Your task to perform on an android device: Go to ESPN.com Image 0: 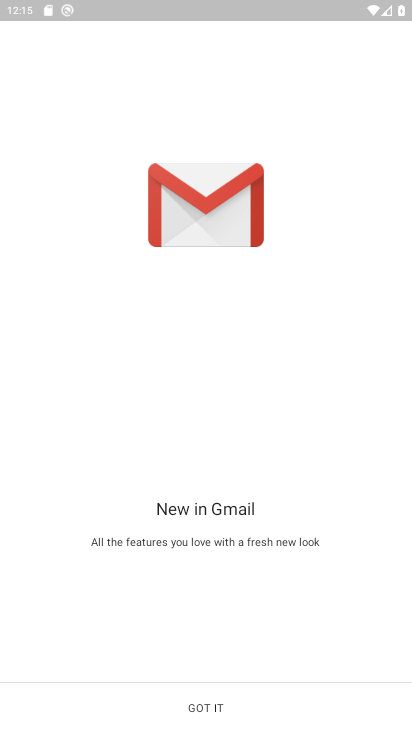
Step 0: press home button
Your task to perform on an android device: Go to ESPN.com Image 1: 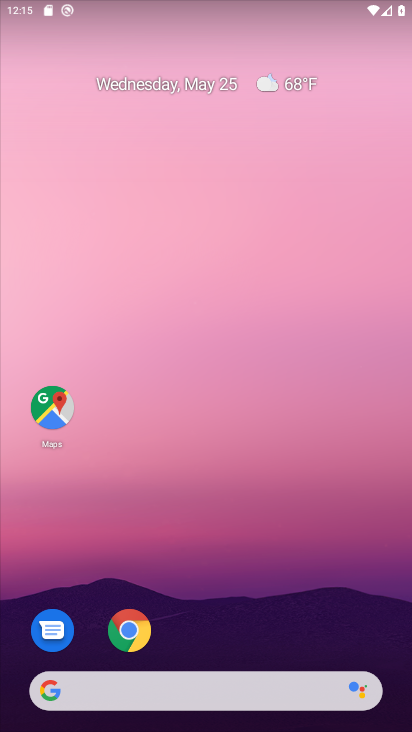
Step 1: click (138, 628)
Your task to perform on an android device: Go to ESPN.com Image 2: 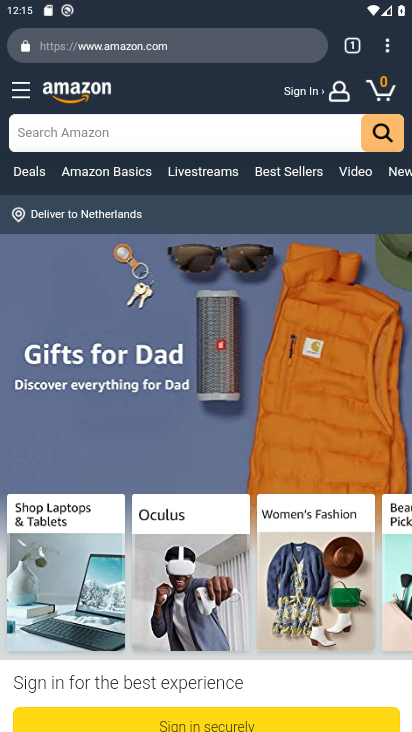
Step 2: click (346, 43)
Your task to perform on an android device: Go to ESPN.com Image 3: 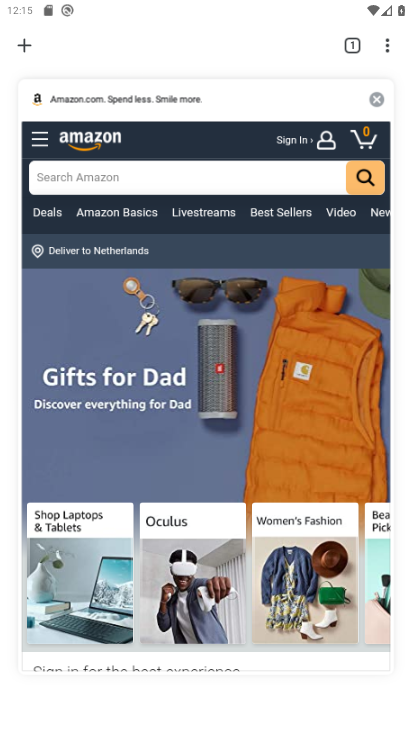
Step 3: click (17, 50)
Your task to perform on an android device: Go to ESPN.com Image 4: 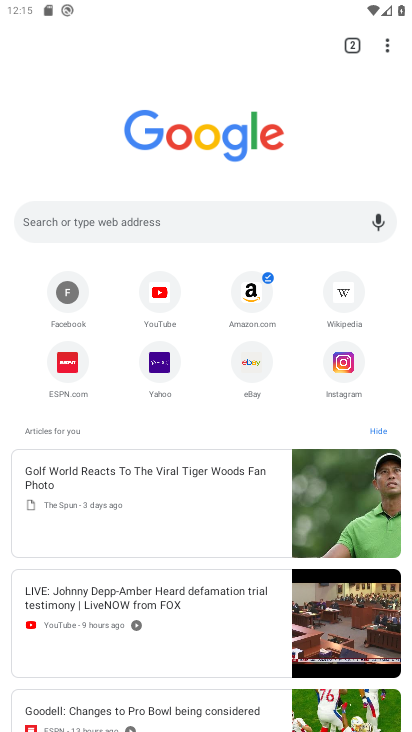
Step 4: click (53, 359)
Your task to perform on an android device: Go to ESPN.com Image 5: 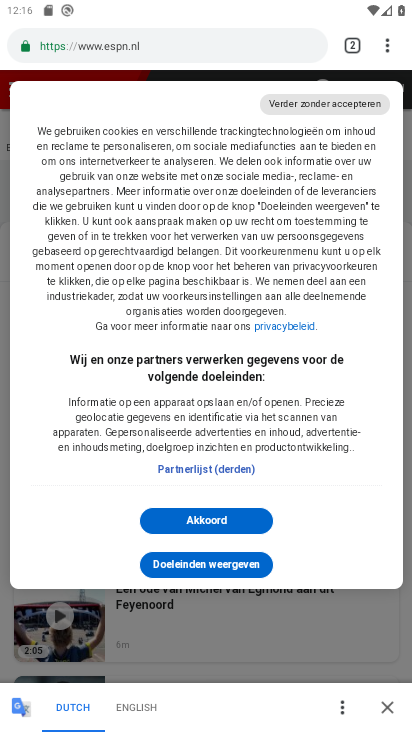
Step 5: task complete